Your task to perform on an android device: Open Wikipedia Image 0: 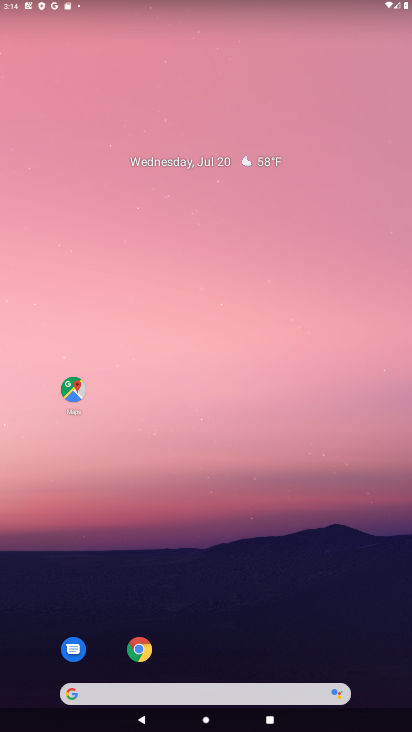
Step 0: click (135, 649)
Your task to perform on an android device: Open Wikipedia Image 1: 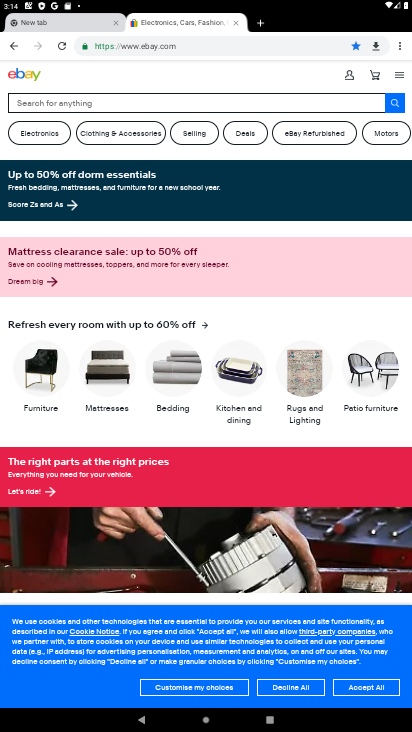
Step 1: click (398, 47)
Your task to perform on an android device: Open Wikipedia Image 2: 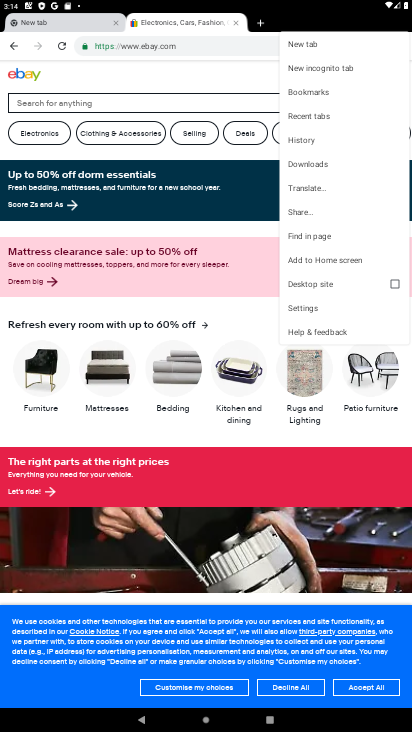
Step 2: click (310, 45)
Your task to perform on an android device: Open Wikipedia Image 3: 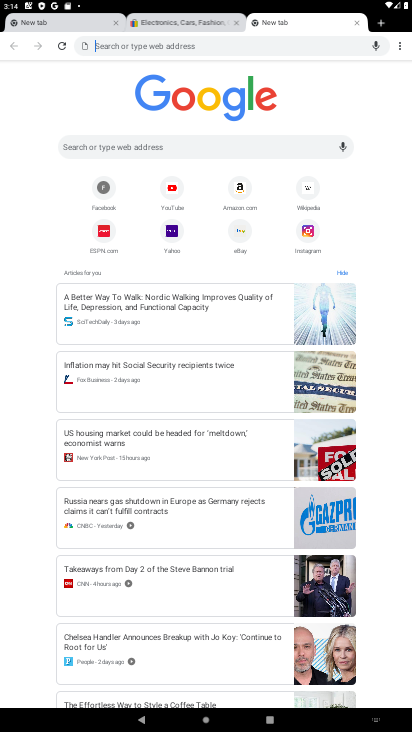
Step 3: click (311, 189)
Your task to perform on an android device: Open Wikipedia Image 4: 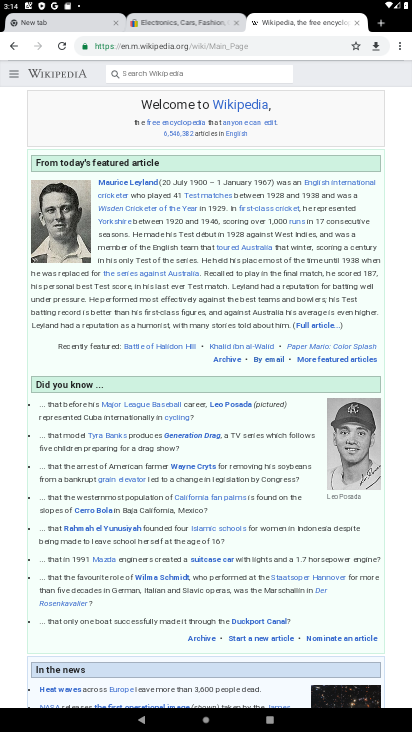
Step 4: task complete